Your task to perform on an android device: Open the phone app and click the voicemail tab. Image 0: 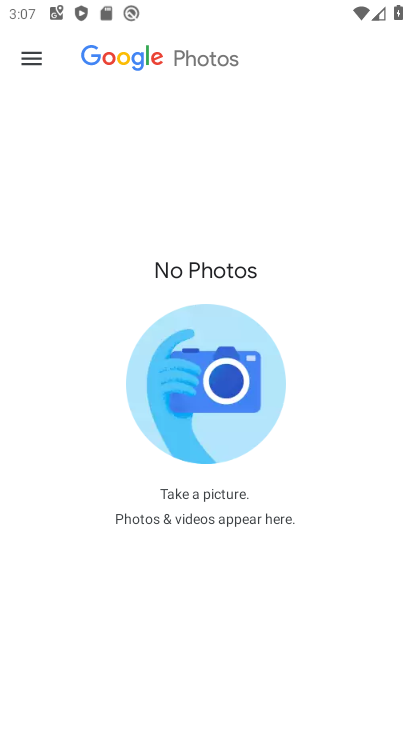
Step 0: press home button
Your task to perform on an android device: Open the phone app and click the voicemail tab. Image 1: 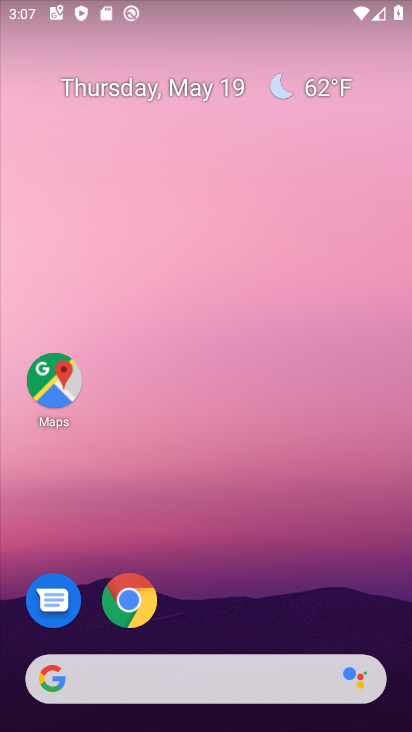
Step 1: drag from (10, 530) to (196, 150)
Your task to perform on an android device: Open the phone app and click the voicemail tab. Image 2: 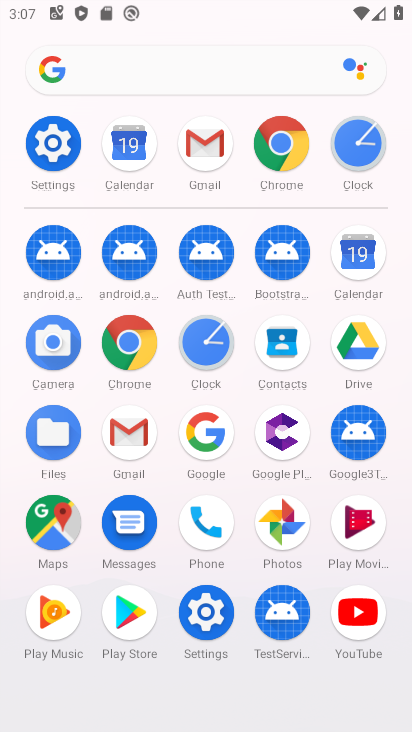
Step 2: click (207, 533)
Your task to perform on an android device: Open the phone app and click the voicemail tab. Image 3: 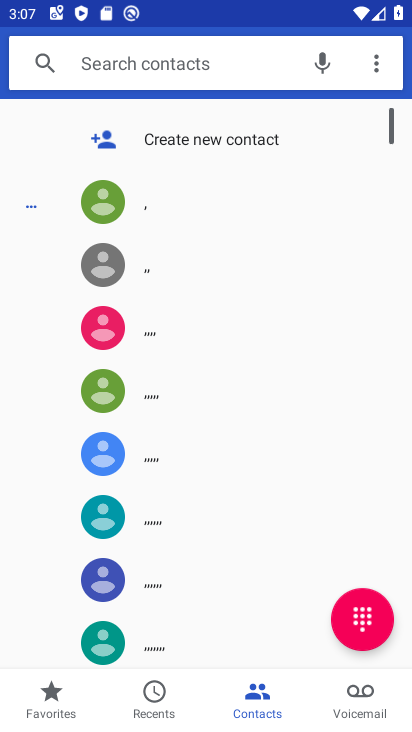
Step 3: click (366, 703)
Your task to perform on an android device: Open the phone app and click the voicemail tab. Image 4: 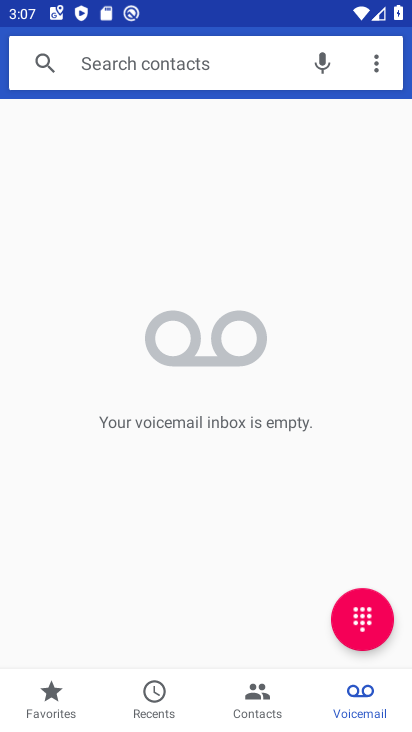
Step 4: task complete